Your task to perform on an android device: Turn off the flashlight Image 0: 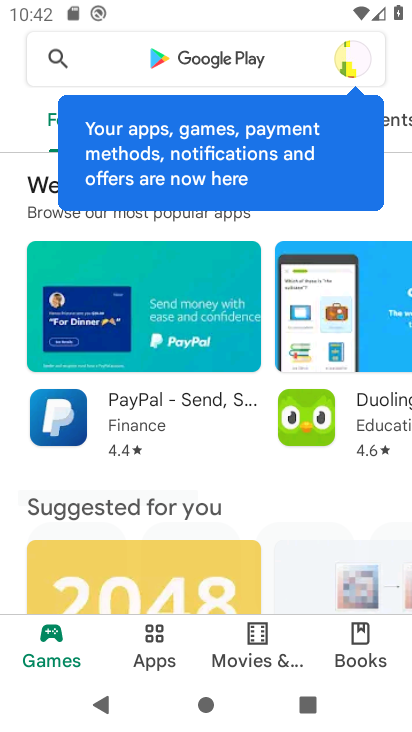
Step 0: press back button
Your task to perform on an android device: Turn off the flashlight Image 1: 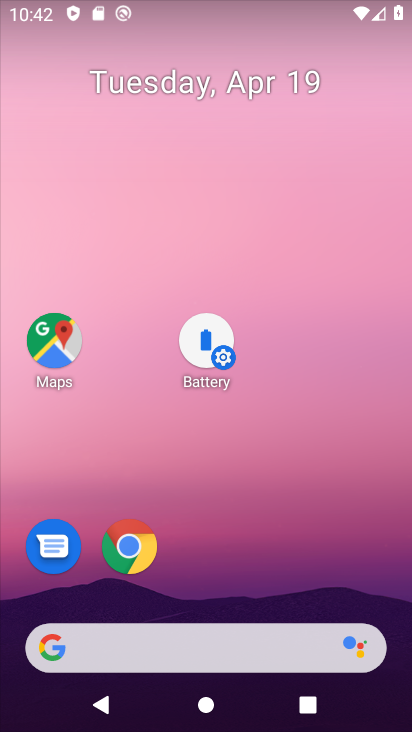
Step 1: drag from (232, 551) to (348, 138)
Your task to perform on an android device: Turn off the flashlight Image 2: 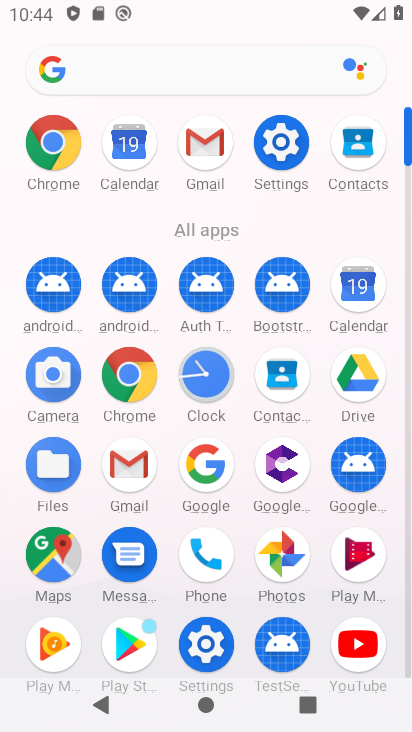
Step 2: click (299, 135)
Your task to perform on an android device: Turn off the flashlight Image 3: 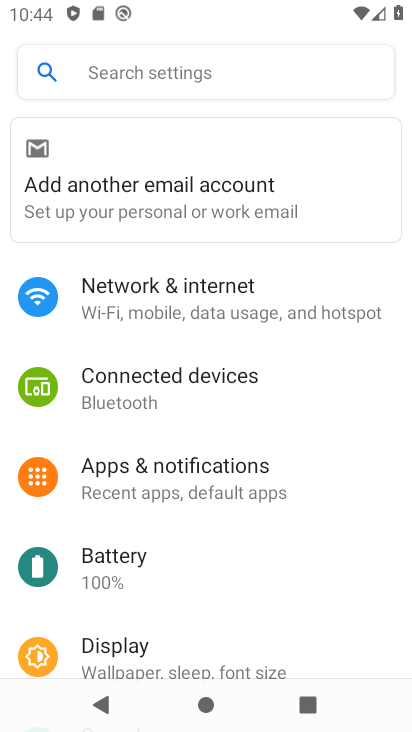
Step 3: click (269, 78)
Your task to perform on an android device: Turn off the flashlight Image 4: 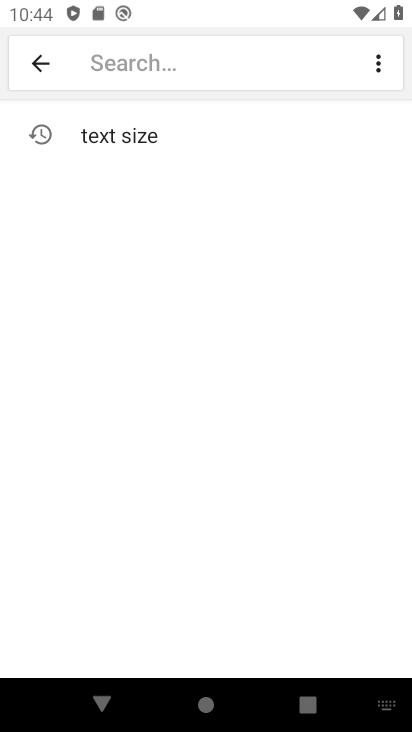
Step 4: type "flashlight"
Your task to perform on an android device: Turn off the flashlight Image 5: 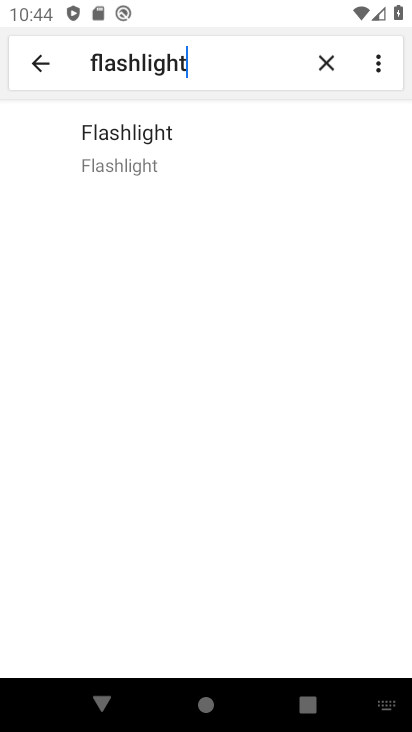
Step 5: click (144, 157)
Your task to perform on an android device: Turn off the flashlight Image 6: 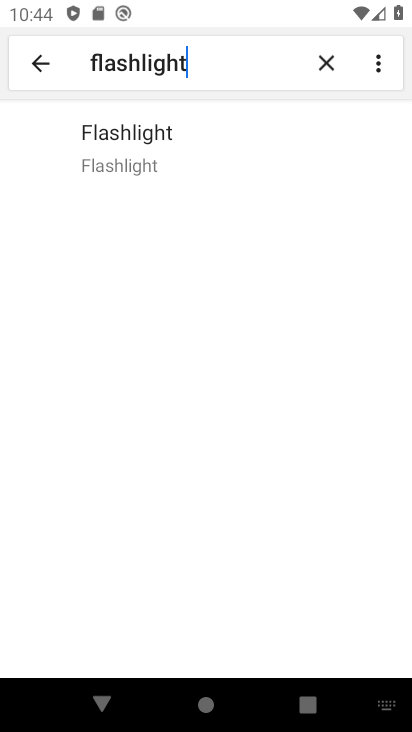
Step 6: task complete